Your task to perform on an android device: See recent photos Image 0: 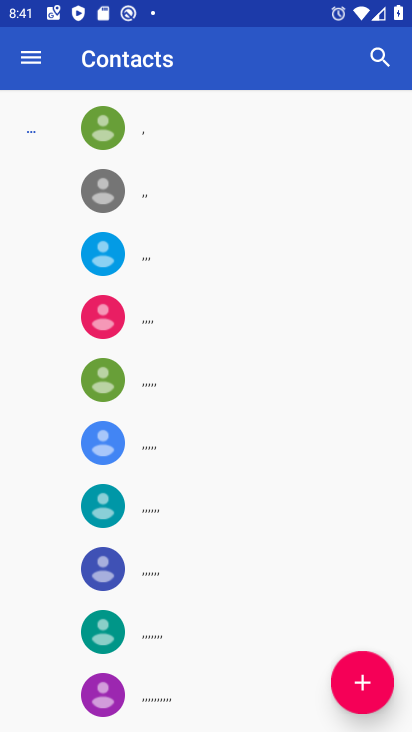
Step 0: press home button
Your task to perform on an android device: See recent photos Image 1: 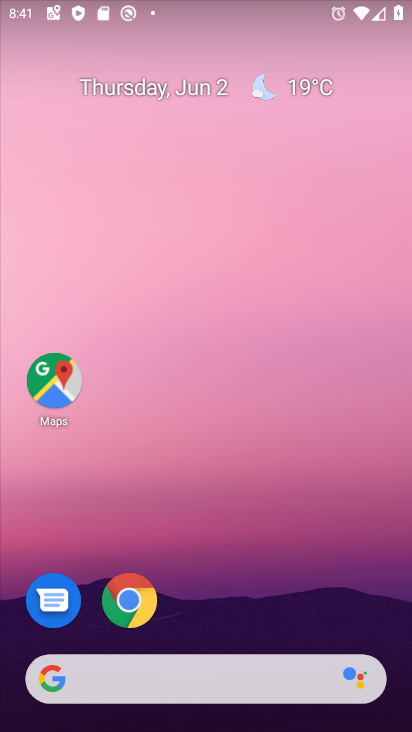
Step 1: drag from (339, 595) to (351, 233)
Your task to perform on an android device: See recent photos Image 2: 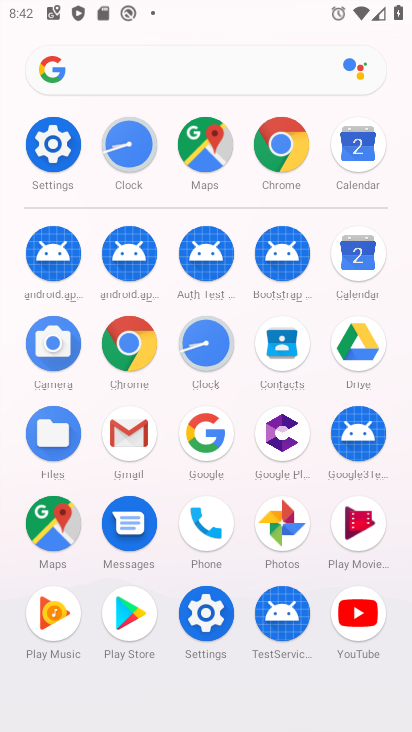
Step 2: click (283, 537)
Your task to perform on an android device: See recent photos Image 3: 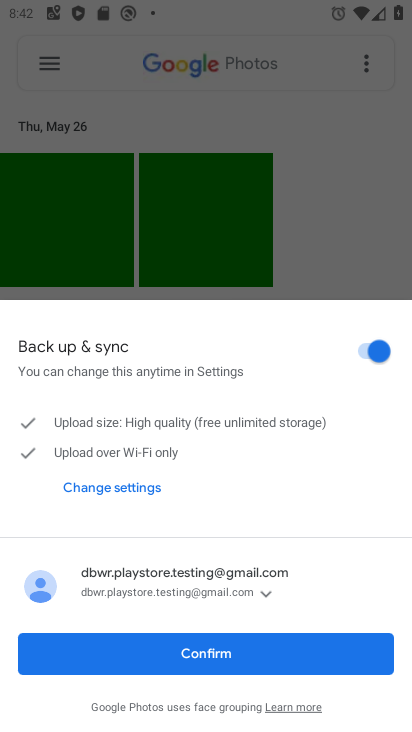
Step 3: click (290, 647)
Your task to perform on an android device: See recent photos Image 4: 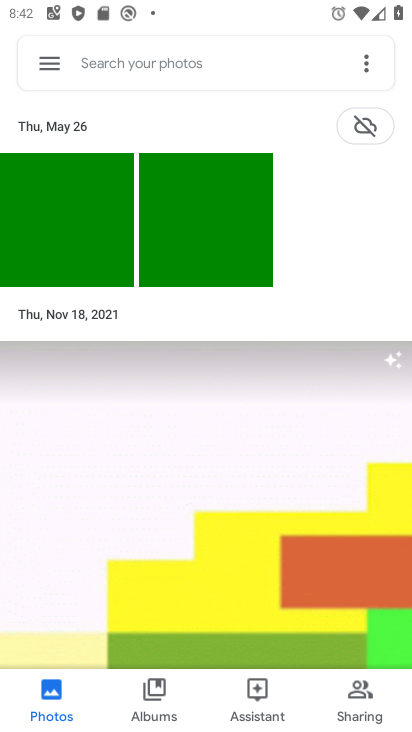
Step 4: click (56, 205)
Your task to perform on an android device: See recent photos Image 5: 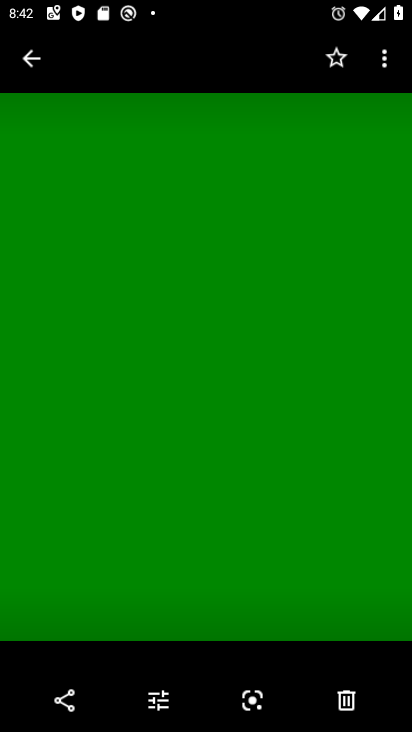
Step 5: task complete